Your task to perform on an android device: turn on javascript in the chrome app Image 0: 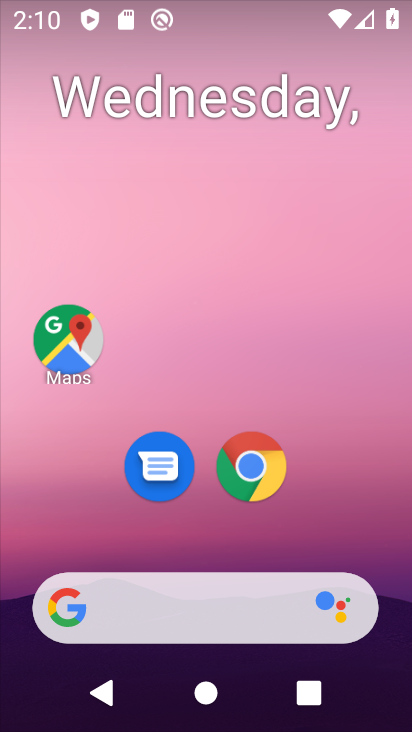
Step 0: drag from (364, 495) to (295, 19)
Your task to perform on an android device: turn on javascript in the chrome app Image 1: 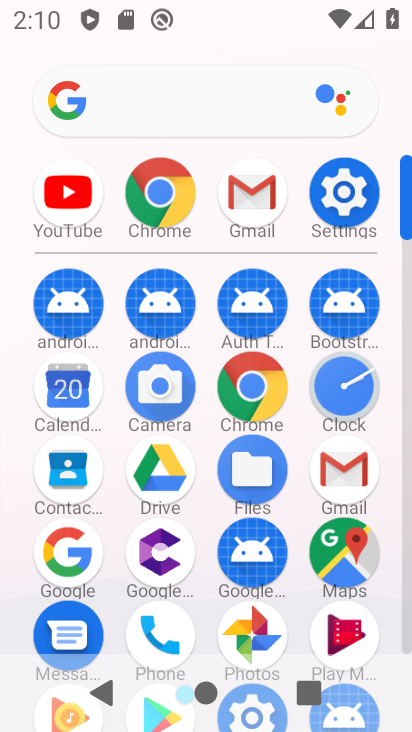
Step 1: click (250, 384)
Your task to perform on an android device: turn on javascript in the chrome app Image 2: 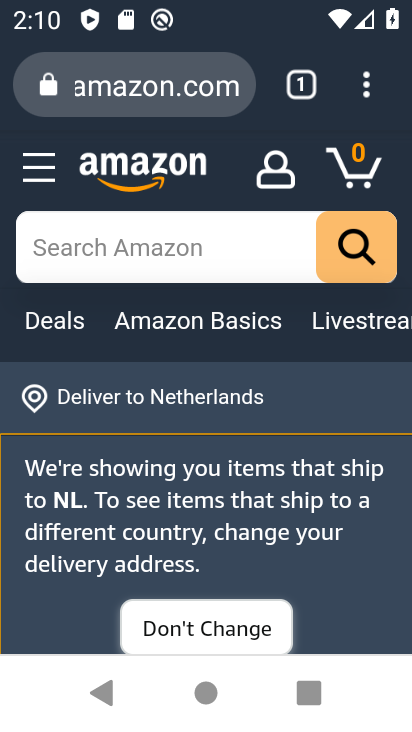
Step 2: drag from (371, 82) to (155, 516)
Your task to perform on an android device: turn on javascript in the chrome app Image 3: 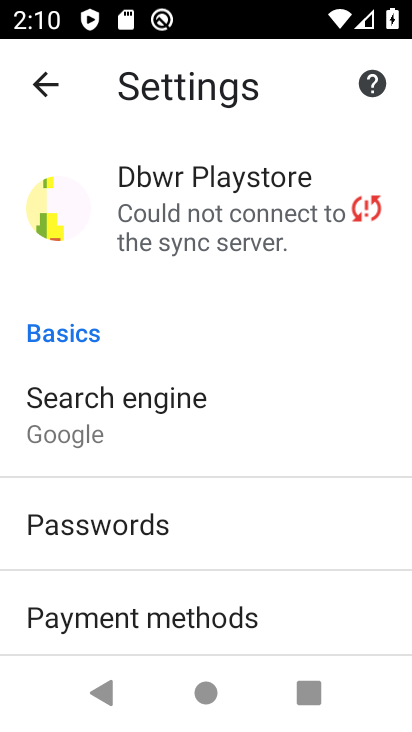
Step 3: drag from (274, 567) to (240, 201)
Your task to perform on an android device: turn on javascript in the chrome app Image 4: 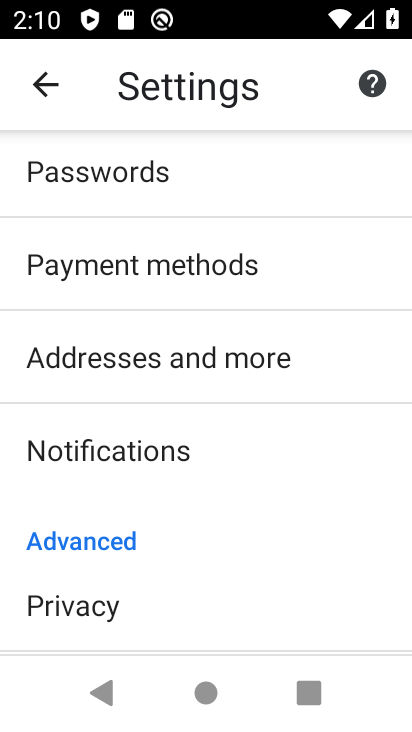
Step 4: drag from (242, 514) to (216, 139)
Your task to perform on an android device: turn on javascript in the chrome app Image 5: 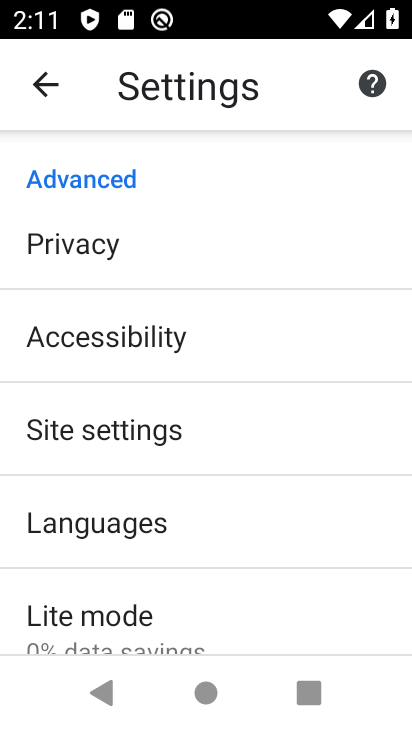
Step 5: drag from (285, 529) to (300, 231)
Your task to perform on an android device: turn on javascript in the chrome app Image 6: 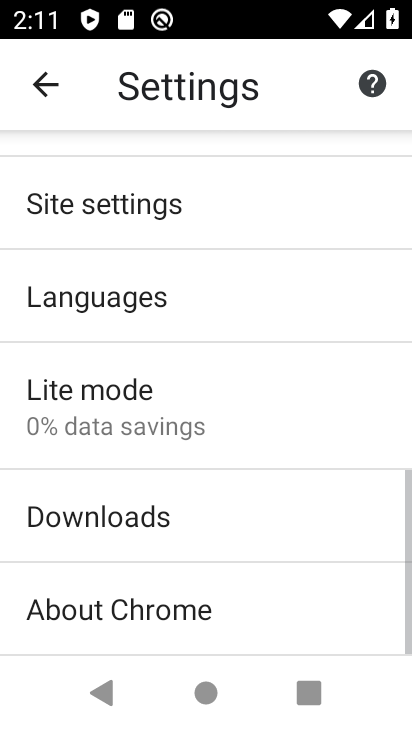
Step 6: click (133, 219)
Your task to perform on an android device: turn on javascript in the chrome app Image 7: 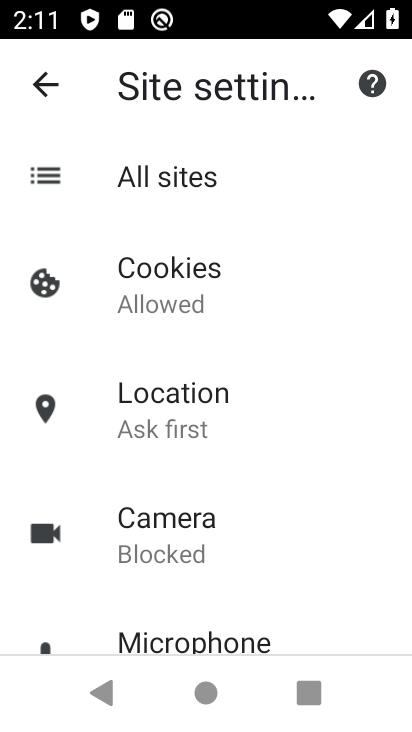
Step 7: drag from (394, 613) to (327, 143)
Your task to perform on an android device: turn on javascript in the chrome app Image 8: 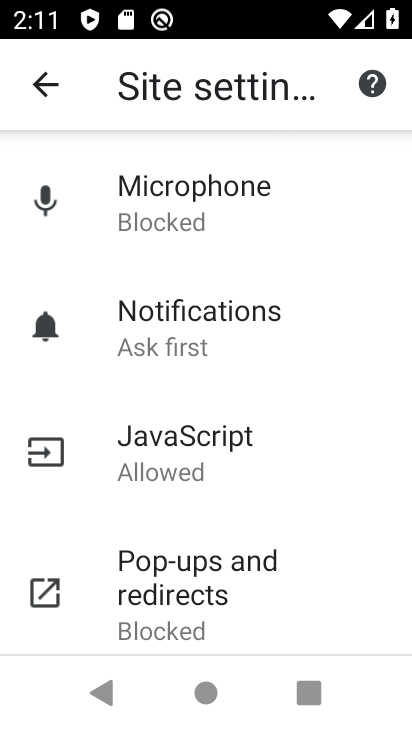
Step 8: click (209, 462)
Your task to perform on an android device: turn on javascript in the chrome app Image 9: 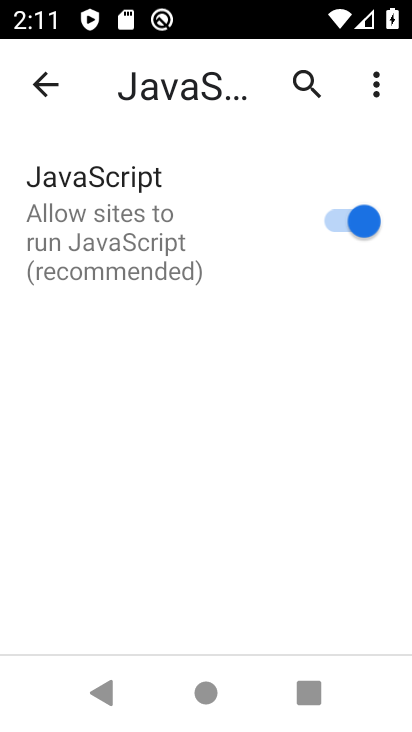
Step 9: task complete